Your task to perform on an android device: When is my next appointment? Image 0: 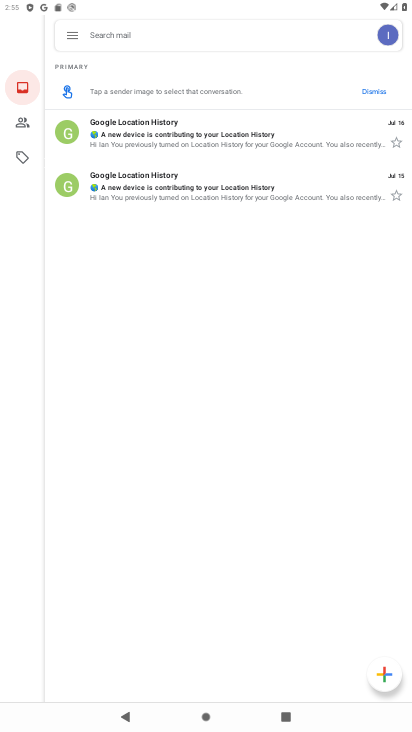
Step 0: press home button
Your task to perform on an android device: When is my next appointment? Image 1: 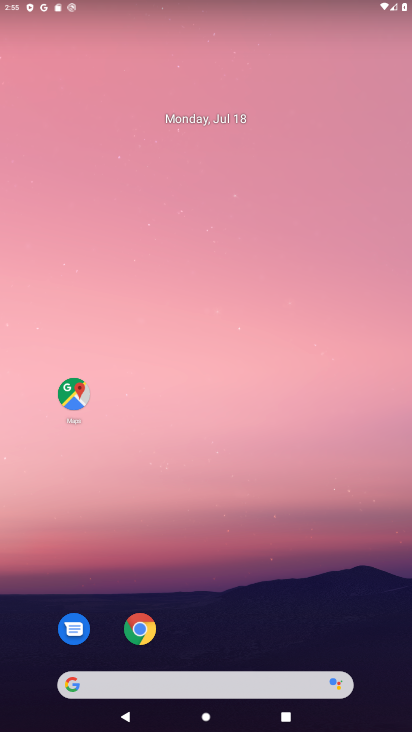
Step 1: drag from (210, 647) to (214, 2)
Your task to perform on an android device: When is my next appointment? Image 2: 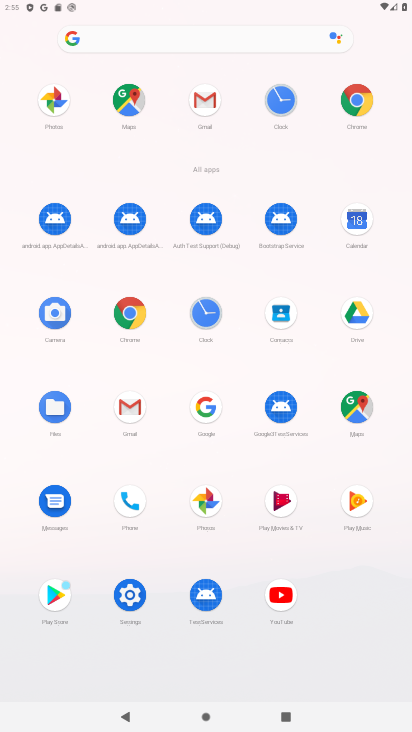
Step 2: click (355, 226)
Your task to perform on an android device: When is my next appointment? Image 3: 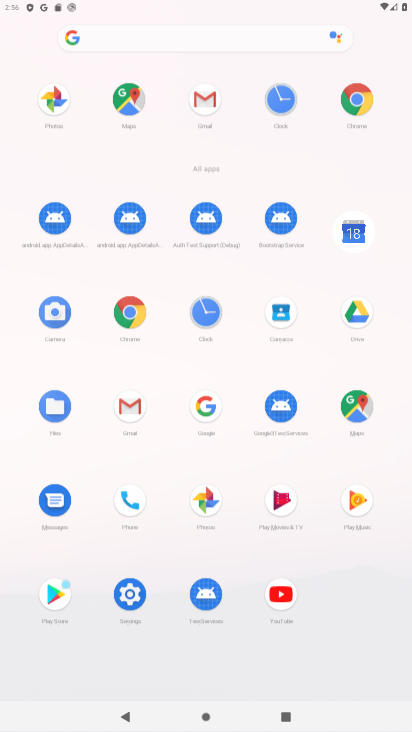
Step 3: click (360, 238)
Your task to perform on an android device: When is my next appointment? Image 4: 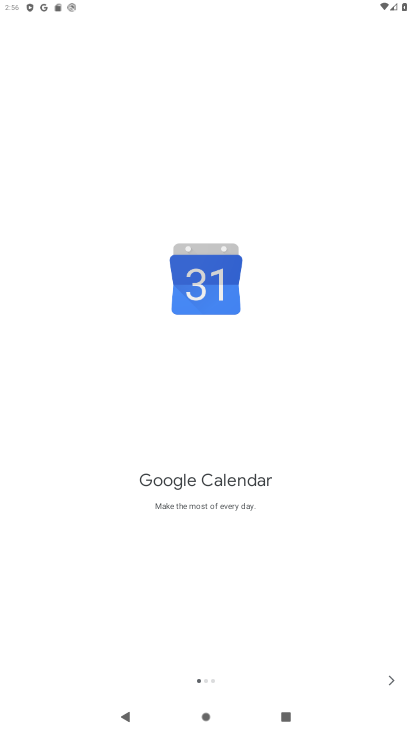
Step 4: click (392, 667)
Your task to perform on an android device: When is my next appointment? Image 5: 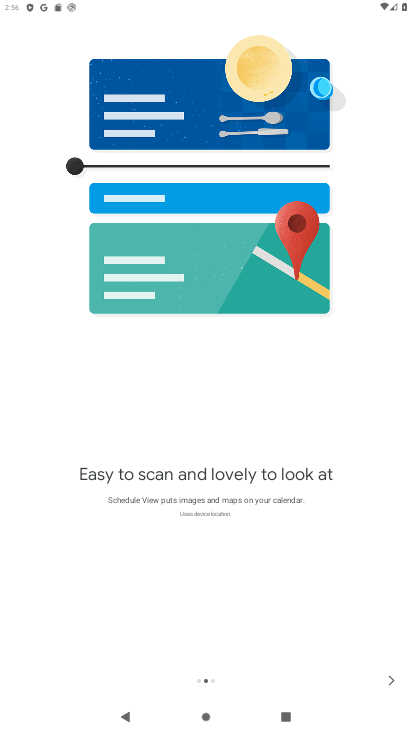
Step 5: click (393, 680)
Your task to perform on an android device: When is my next appointment? Image 6: 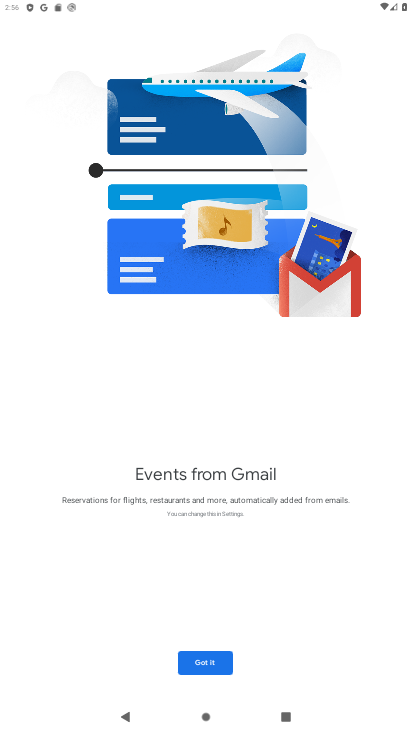
Step 6: click (199, 659)
Your task to perform on an android device: When is my next appointment? Image 7: 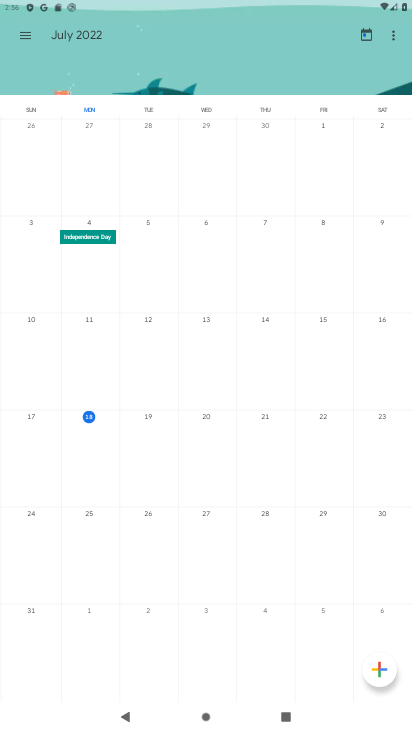
Step 7: task complete